Your task to perform on an android device: Open eBay Image 0: 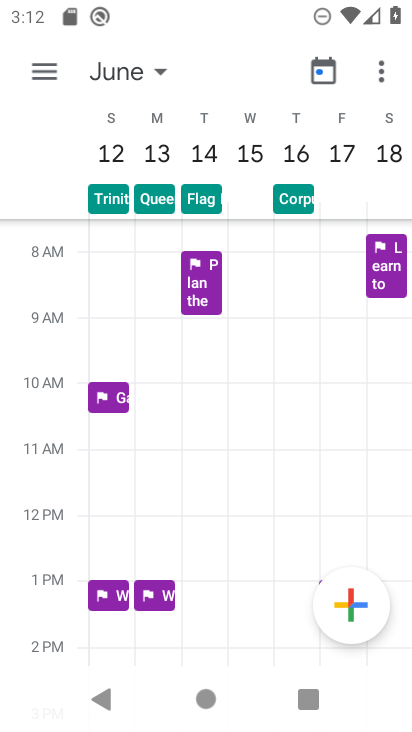
Step 0: press home button
Your task to perform on an android device: Open eBay Image 1: 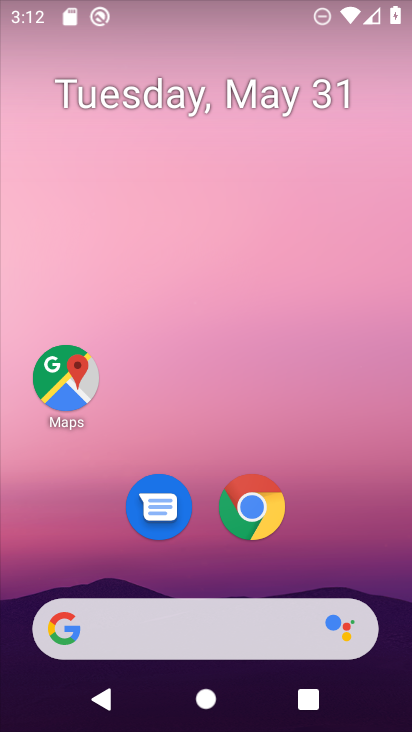
Step 1: click (252, 519)
Your task to perform on an android device: Open eBay Image 2: 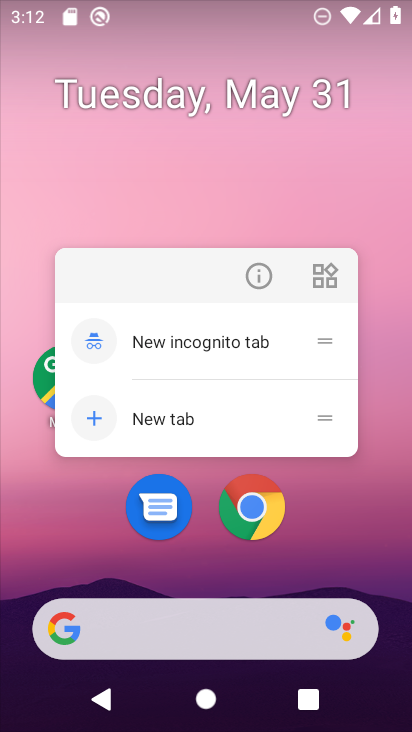
Step 2: click (241, 524)
Your task to perform on an android device: Open eBay Image 3: 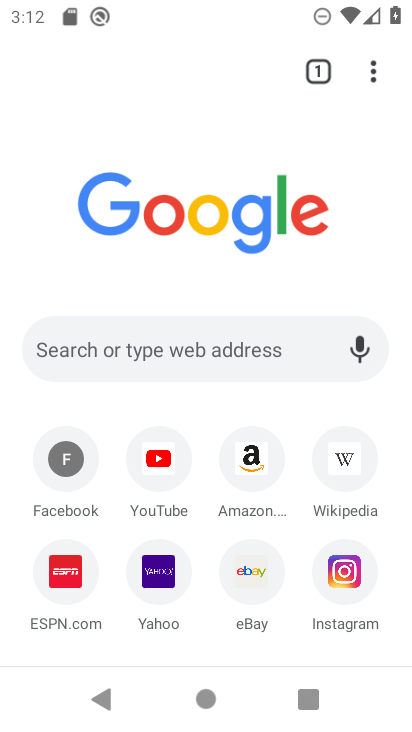
Step 3: click (256, 578)
Your task to perform on an android device: Open eBay Image 4: 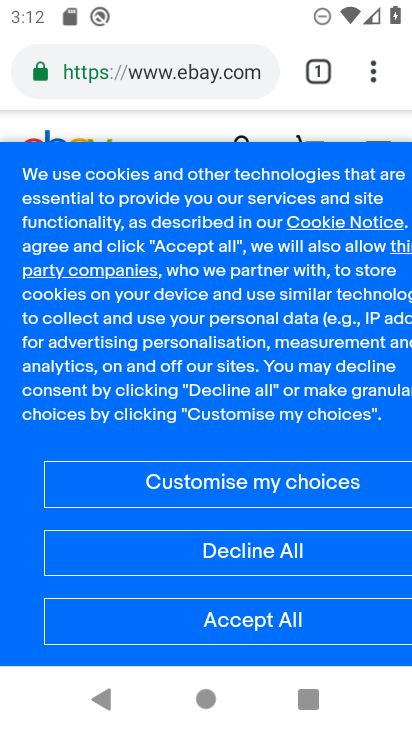
Step 4: click (181, 634)
Your task to perform on an android device: Open eBay Image 5: 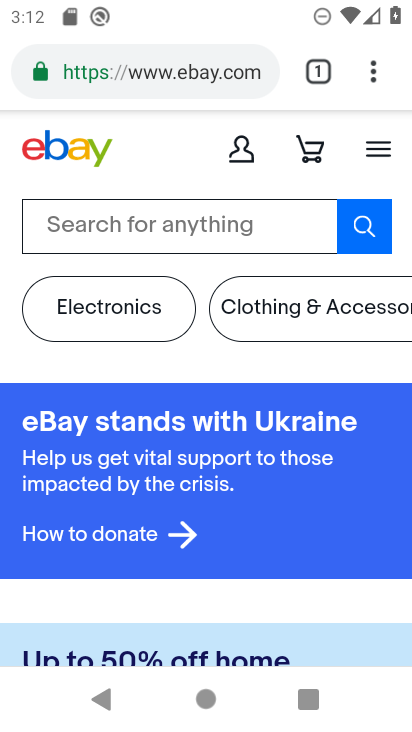
Step 5: task complete